Your task to perform on an android device: toggle improve location accuracy Image 0: 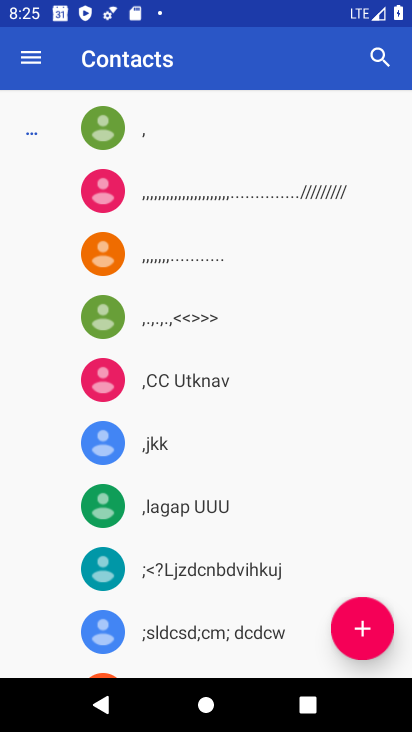
Step 0: press home button
Your task to perform on an android device: toggle improve location accuracy Image 1: 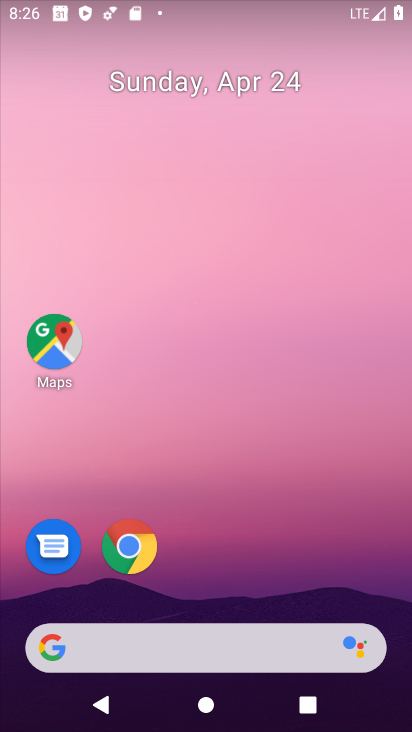
Step 1: drag from (270, 539) to (234, 378)
Your task to perform on an android device: toggle improve location accuracy Image 2: 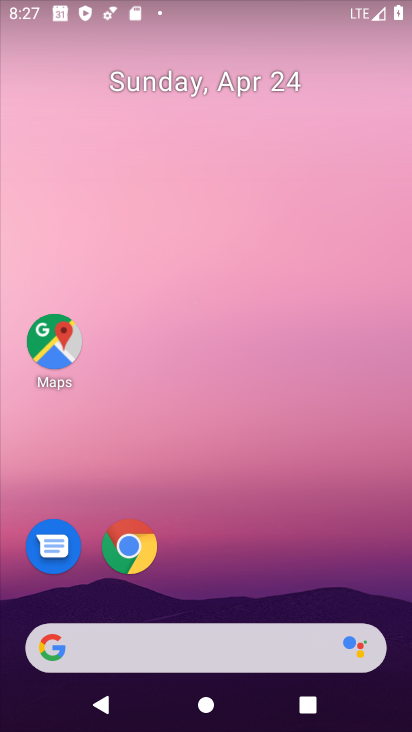
Step 2: drag from (218, 473) to (159, 6)
Your task to perform on an android device: toggle improve location accuracy Image 3: 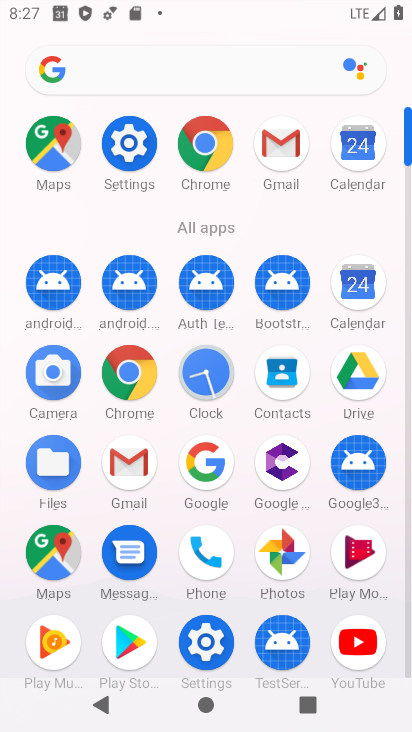
Step 3: click (207, 634)
Your task to perform on an android device: toggle improve location accuracy Image 4: 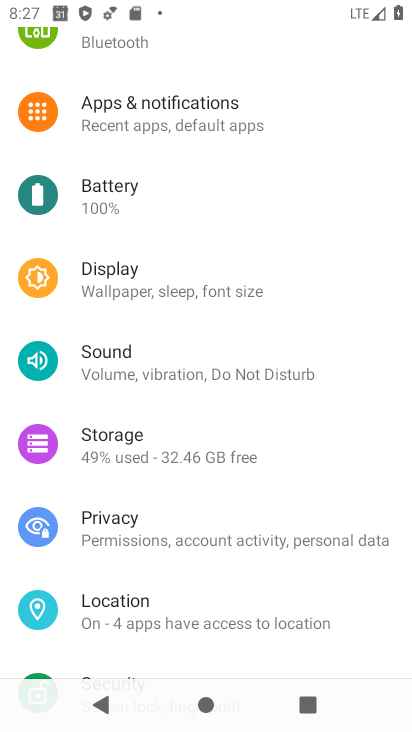
Step 4: click (196, 593)
Your task to perform on an android device: toggle improve location accuracy Image 5: 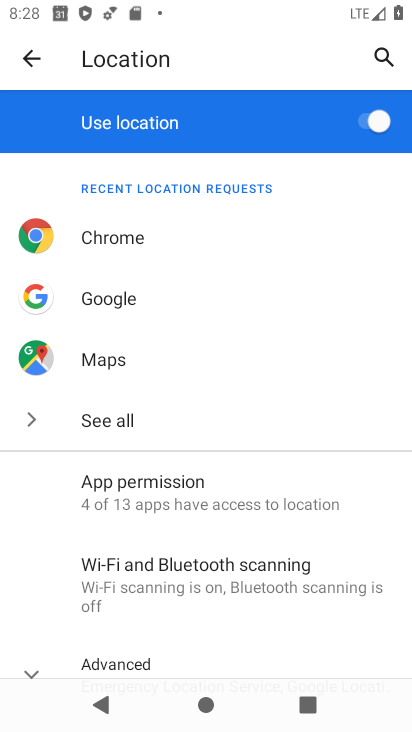
Step 5: click (190, 644)
Your task to perform on an android device: toggle improve location accuracy Image 6: 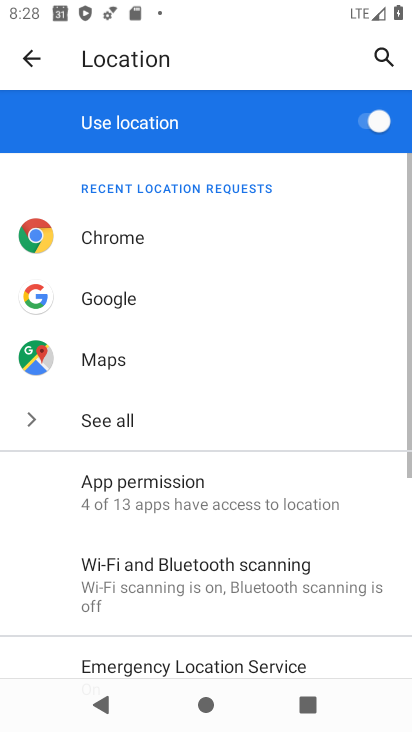
Step 6: drag from (209, 615) to (209, 261)
Your task to perform on an android device: toggle improve location accuracy Image 7: 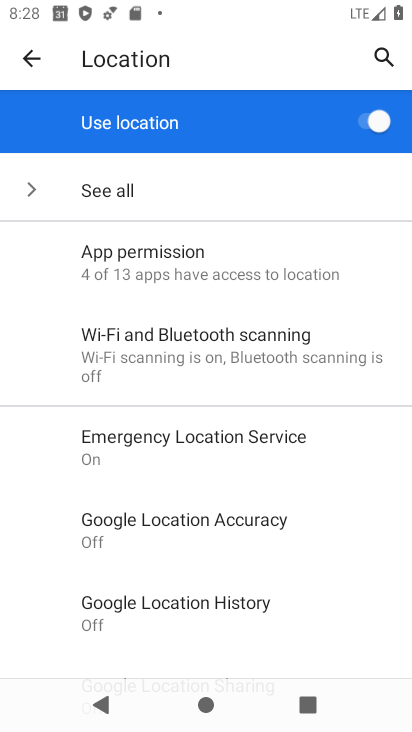
Step 7: click (209, 501)
Your task to perform on an android device: toggle improve location accuracy Image 8: 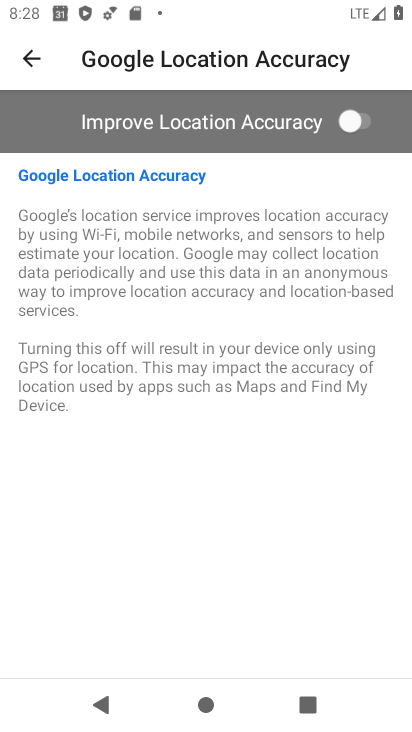
Step 8: click (318, 104)
Your task to perform on an android device: toggle improve location accuracy Image 9: 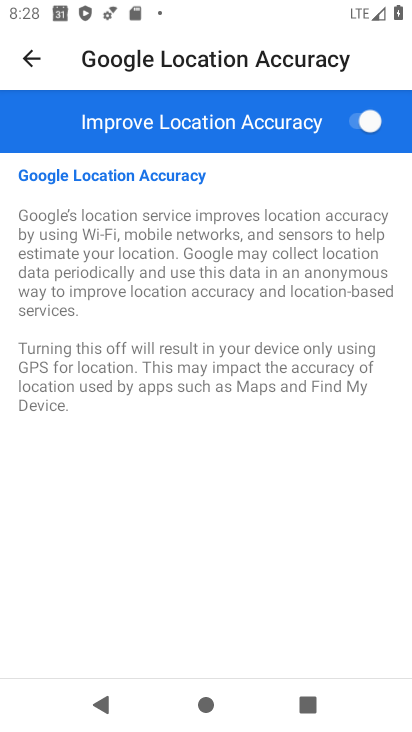
Step 9: task complete